Your task to perform on an android device: toggle data saver in the chrome app Image 0: 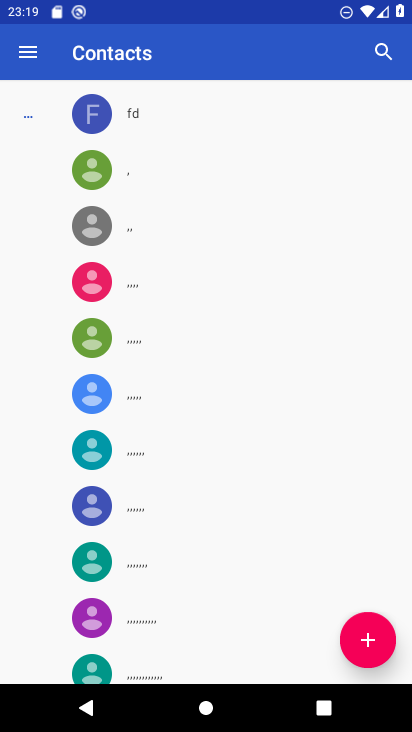
Step 0: press home button
Your task to perform on an android device: toggle data saver in the chrome app Image 1: 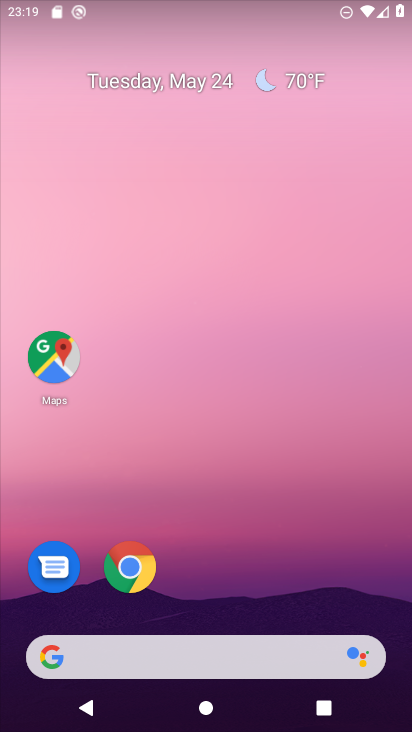
Step 1: click (143, 563)
Your task to perform on an android device: toggle data saver in the chrome app Image 2: 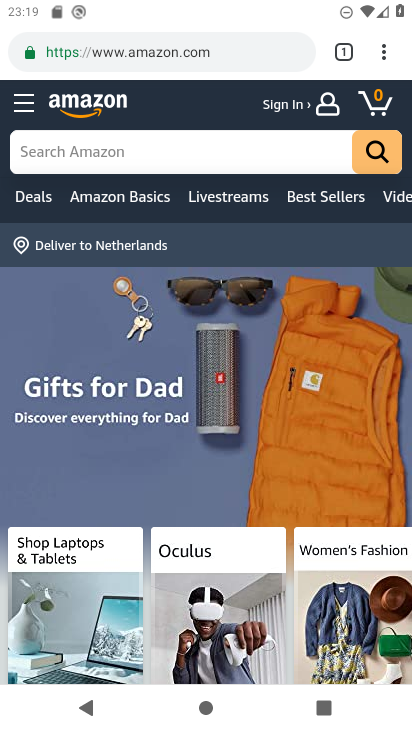
Step 2: click (387, 50)
Your task to perform on an android device: toggle data saver in the chrome app Image 3: 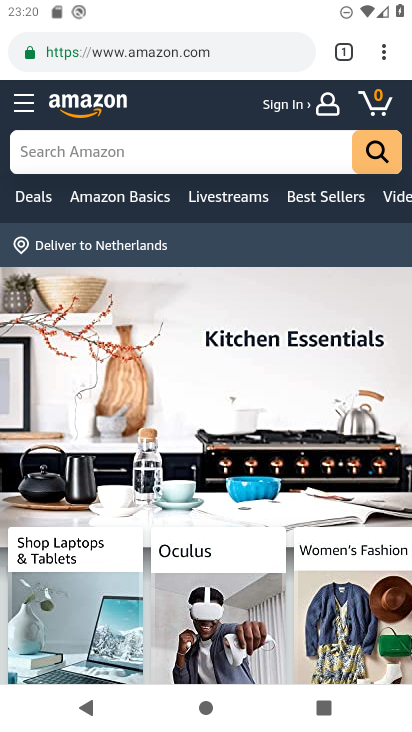
Step 3: click (385, 44)
Your task to perform on an android device: toggle data saver in the chrome app Image 4: 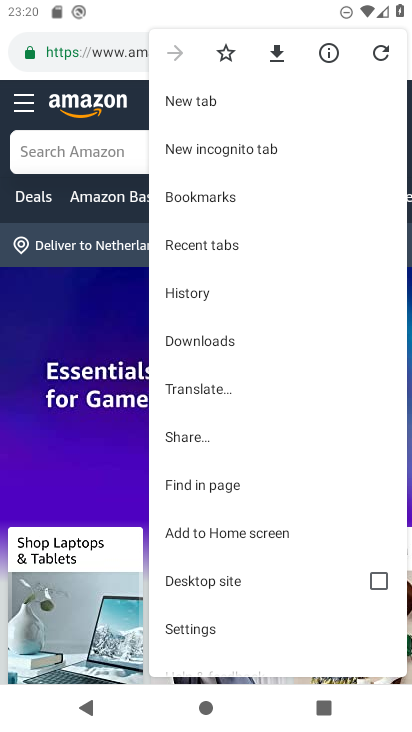
Step 4: click (232, 619)
Your task to perform on an android device: toggle data saver in the chrome app Image 5: 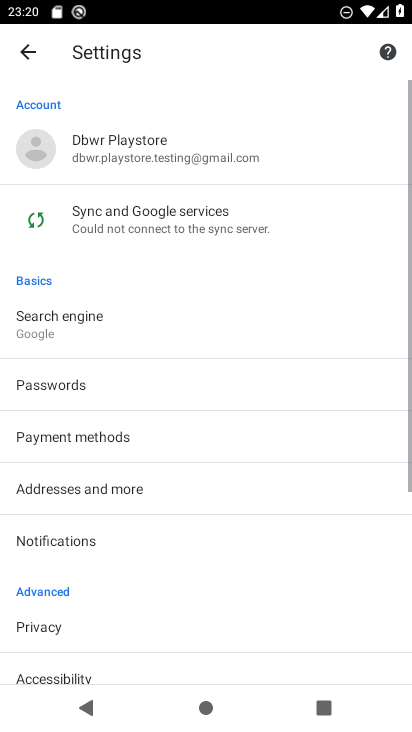
Step 5: drag from (208, 589) to (195, 123)
Your task to perform on an android device: toggle data saver in the chrome app Image 6: 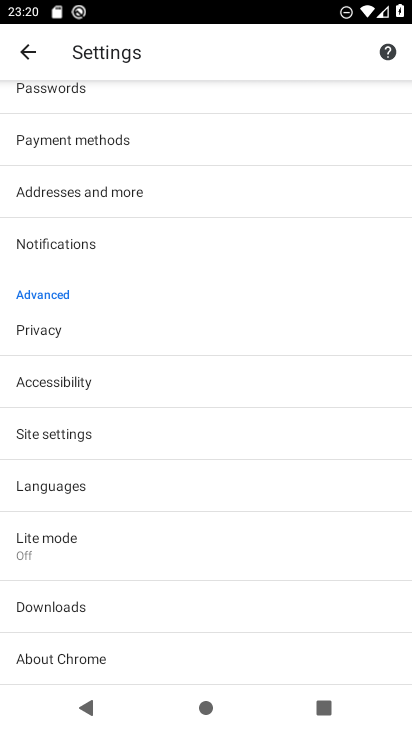
Step 6: click (174, 549)
Your task to perform on an android device: toggle data saver in the chrome app Image 7: 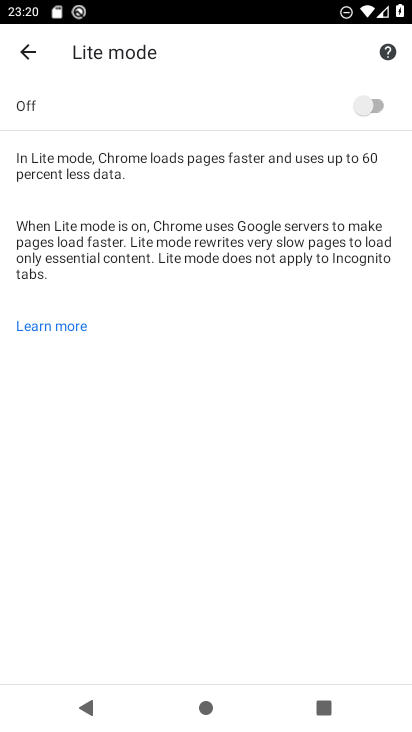
Step 7: click (376, 108)
Your task to perform on an android device: toggle data saver in the chrome app Image 8: 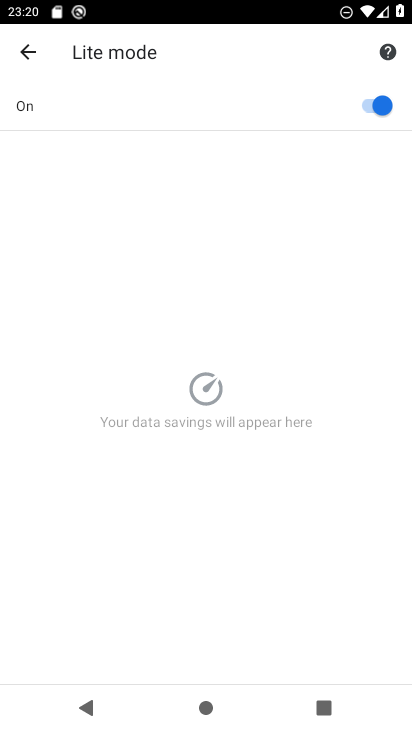
Step 8: task complete